Your task to perform on an android device: turn vacation reply on in the gmail app Image 0: 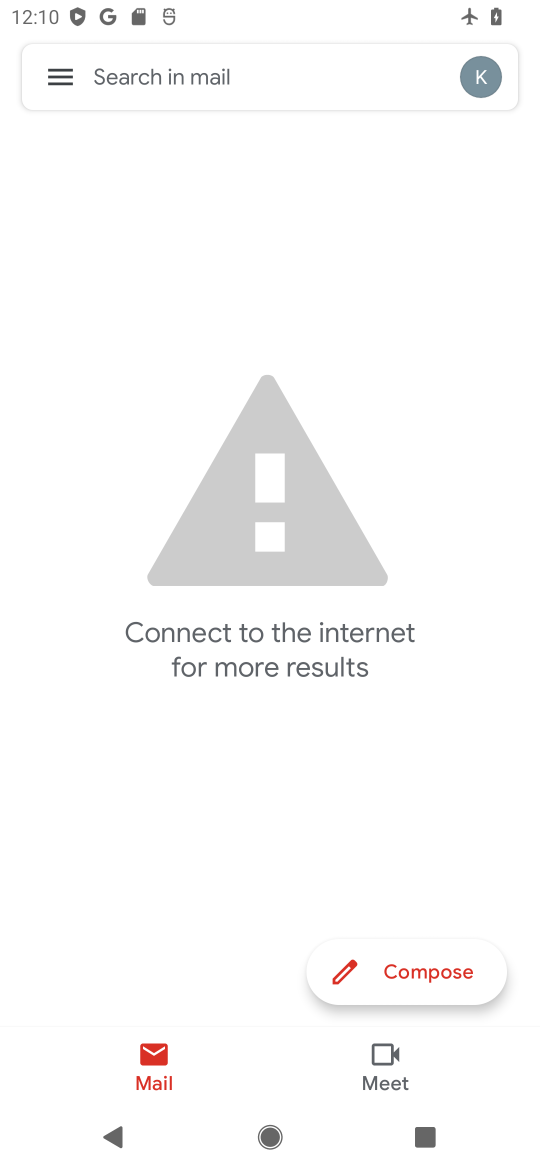
Step 0: press home button
Your task to perform on an android device: turn vacation reply on in the gmail app Image 1: 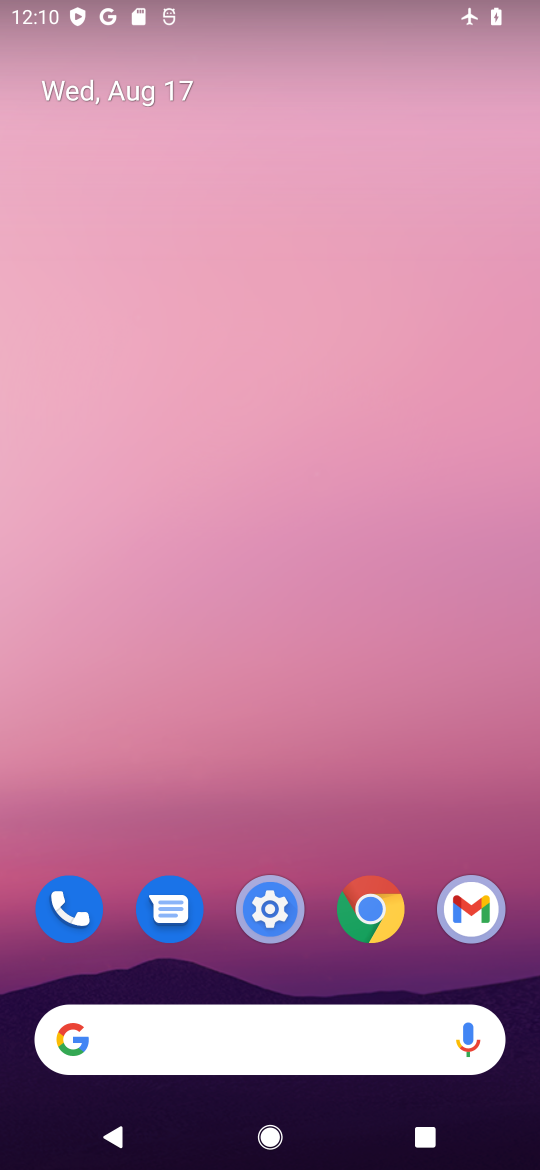
Step 1: click (476, 914)
Your task to perform on an android device: turn vacation reply on in the gmail app Image 2: 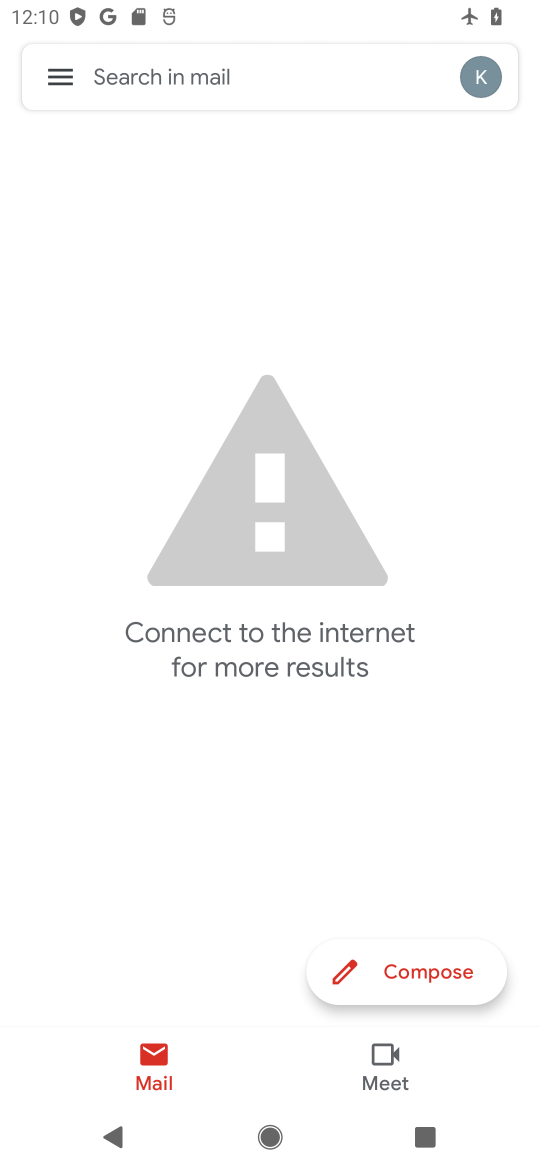
Step 2: click (60, 76)
Your task to perform on an android device: turn vacation reply on in the gmail app Image 3: 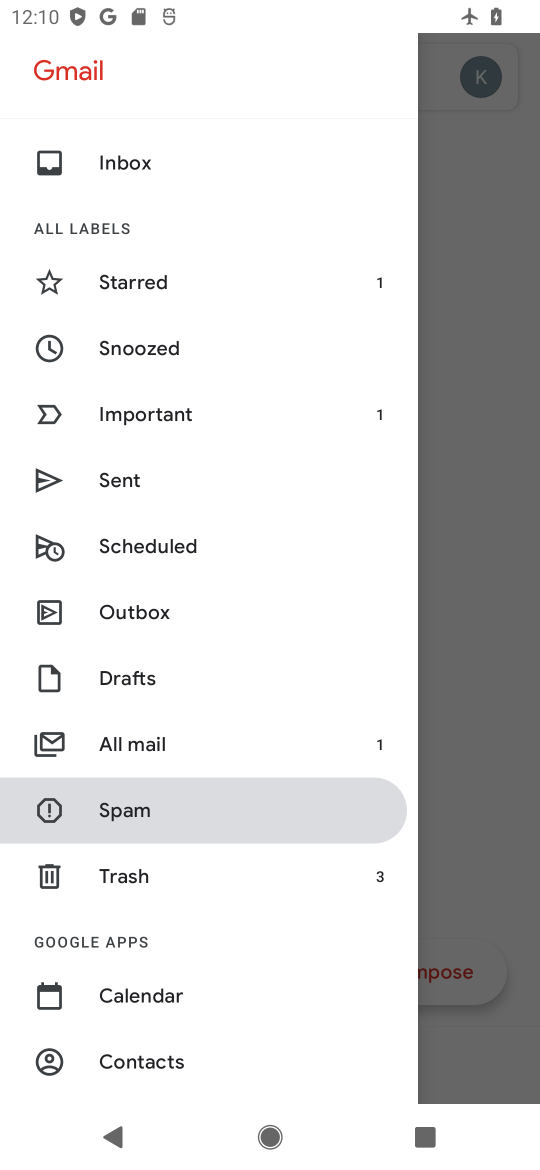
Step 3: drag from (254, 982) to (267, 402)
Your task to perform on an android device: turn vacation reply on in the gmail app Image 4: 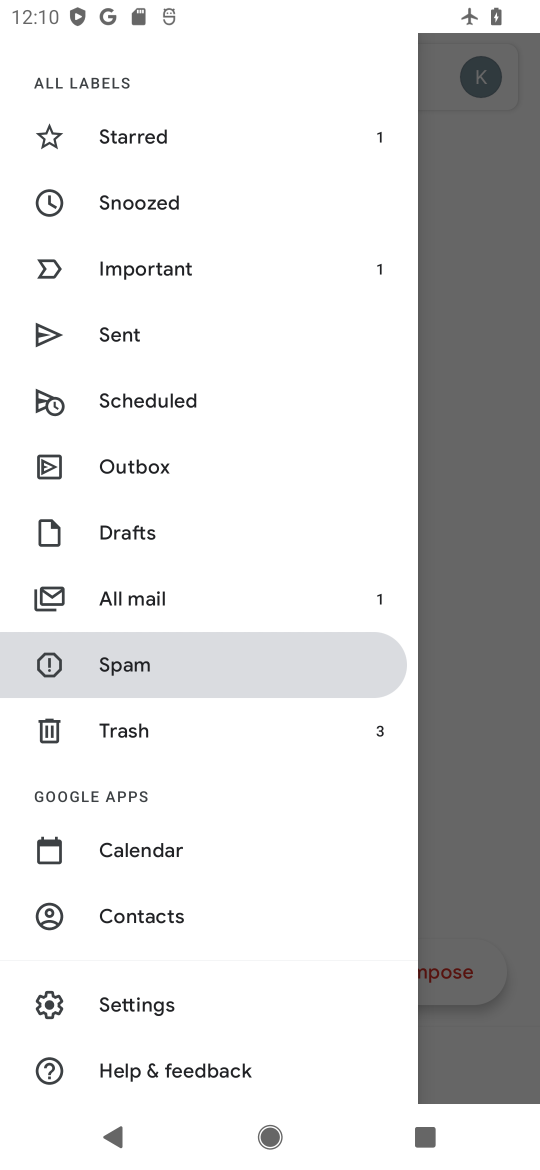
Step 4: click (143, 994)
Your task to perform on an android device: turn vacation reply on in the gmail app Image 5: 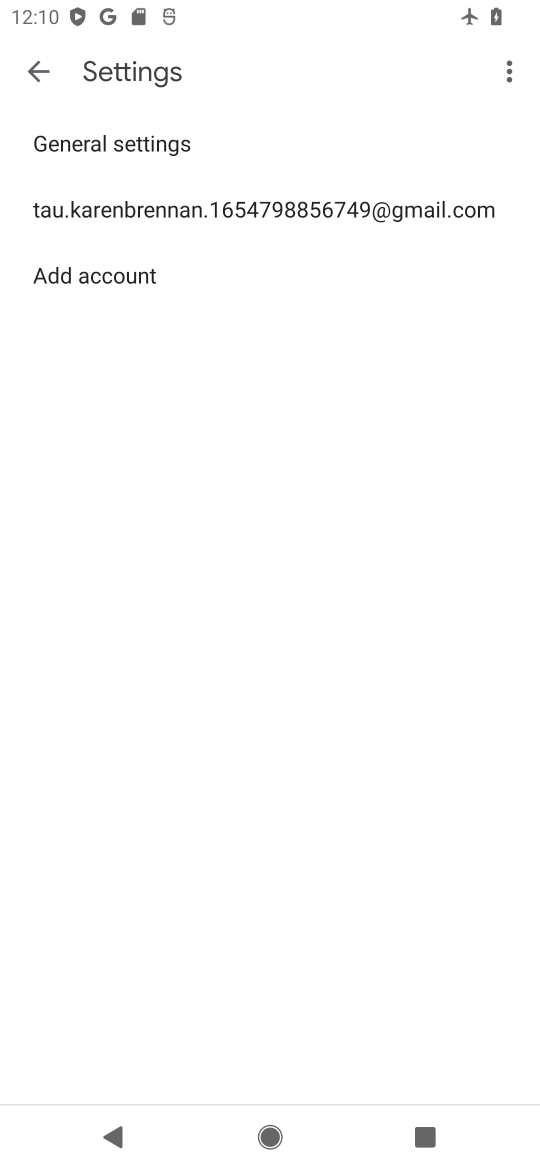
Step 5: click (168, 212)
Your task to perform on an android device: turn vacation reply on in the gmail app Image 6: 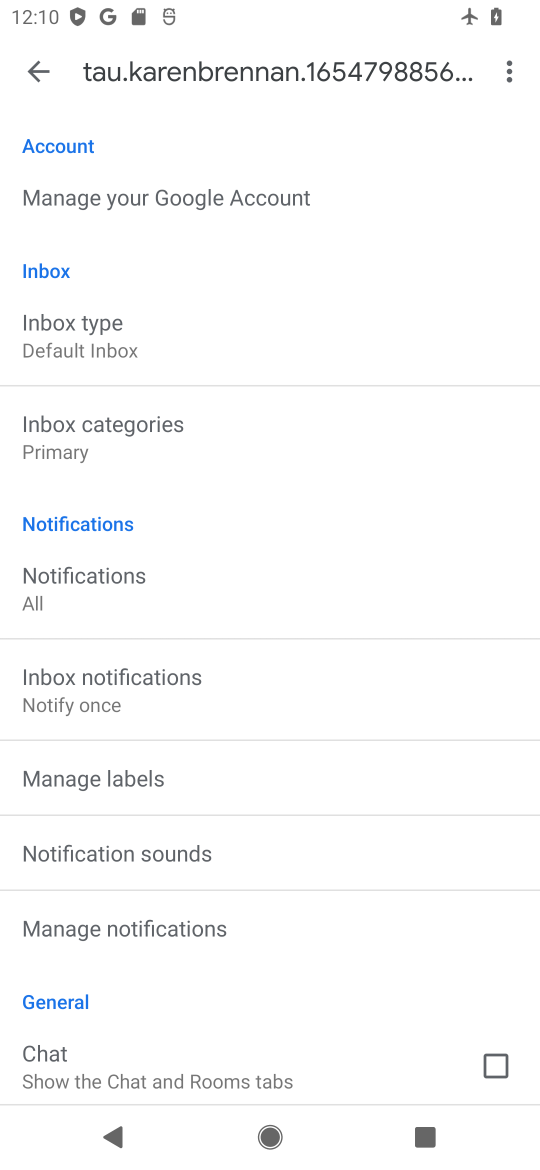
Step 6: drag from (292, 973) to (313, 419)
Your task to perform on an android device: turn vacation reply on in the gmail app Image 7: 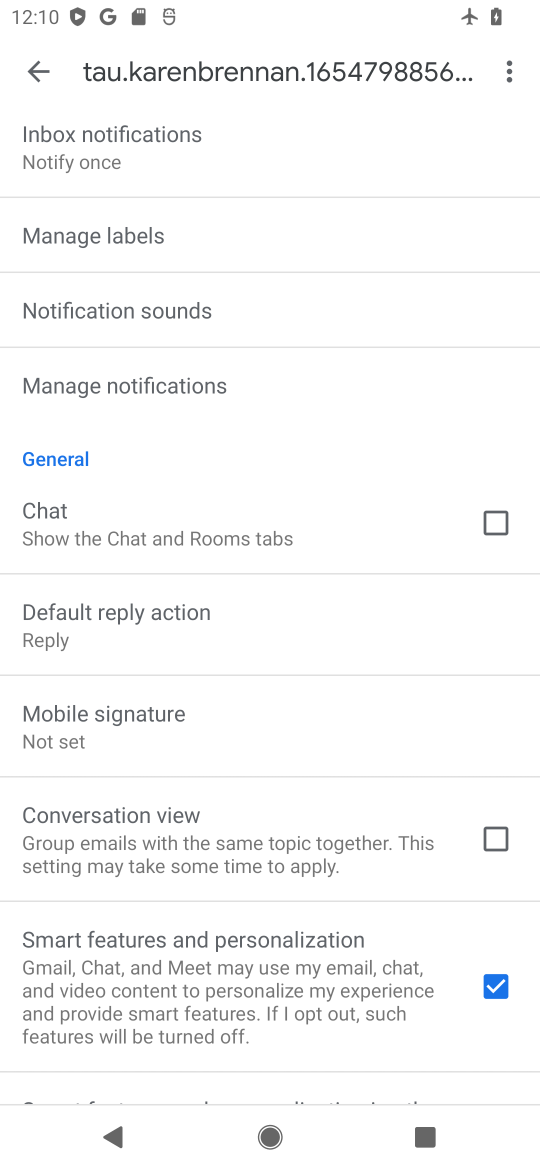
Step 7: drag from (283, 734) to (285, 280)
Your task to perform on an android device: turn vacation reply on in the gmail app Image 8: 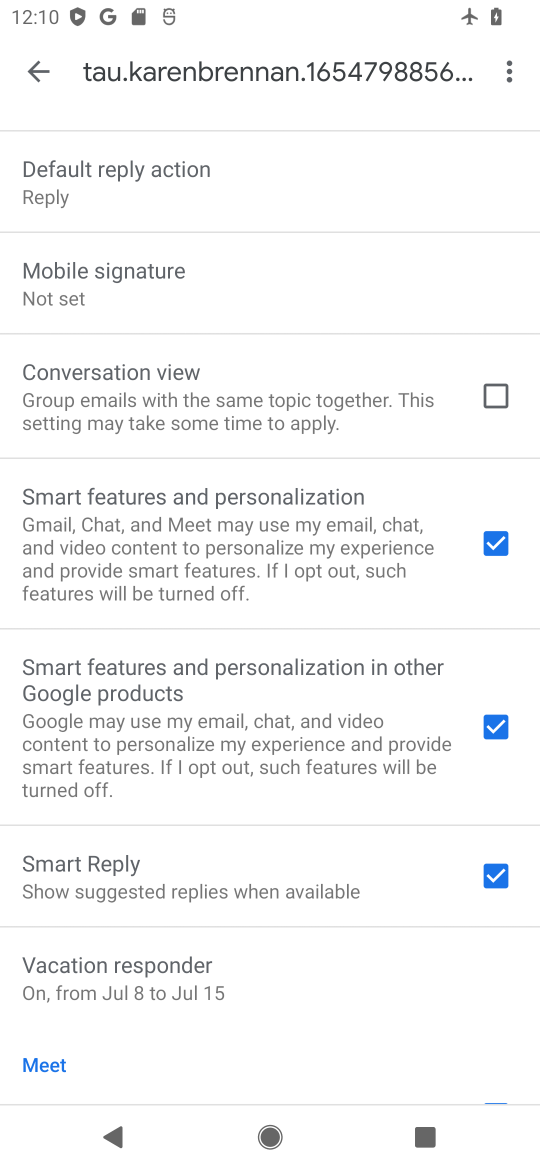
Step 8: click (119, 964)
Your task to perform on an android device: turn vacation reply on in the gmail app Image 9: 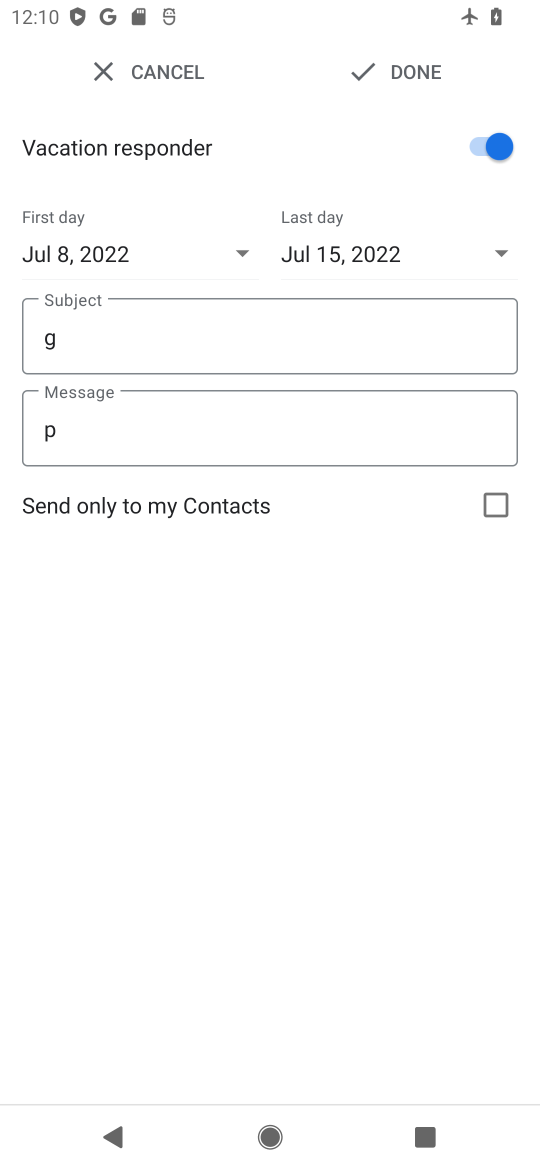
Step 9: task complete